Your task to perform on an android device: turn notification dots on Image 0: 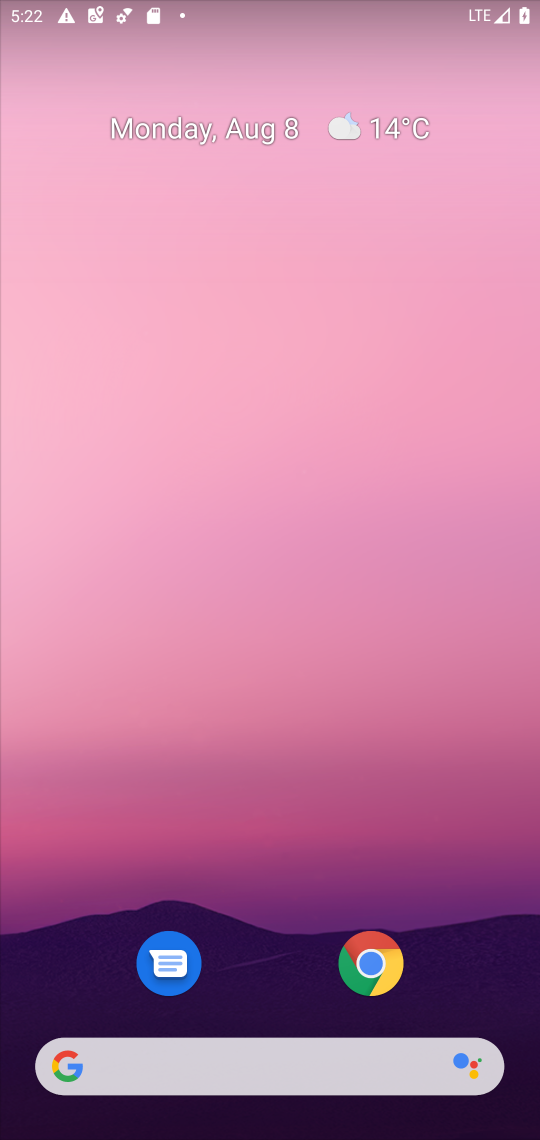
Step 0: drag from (281, 910) to (159, 187)
Your task to perform on an android device: turn notification dots on Image 1: 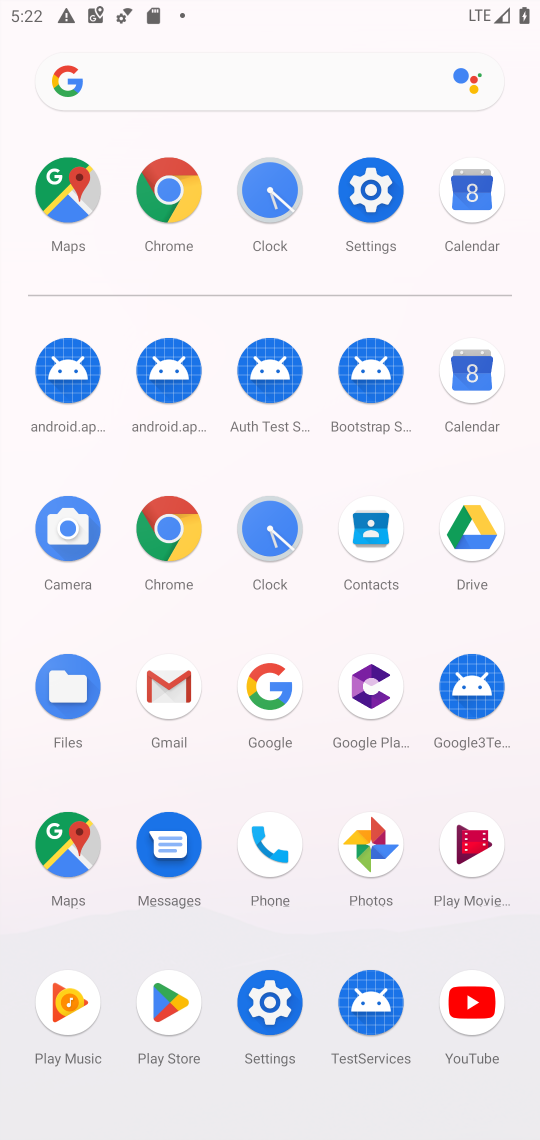
Step 1: click (259, 1008)
Your task to perform on an android device: turn notification dots on Image 2: 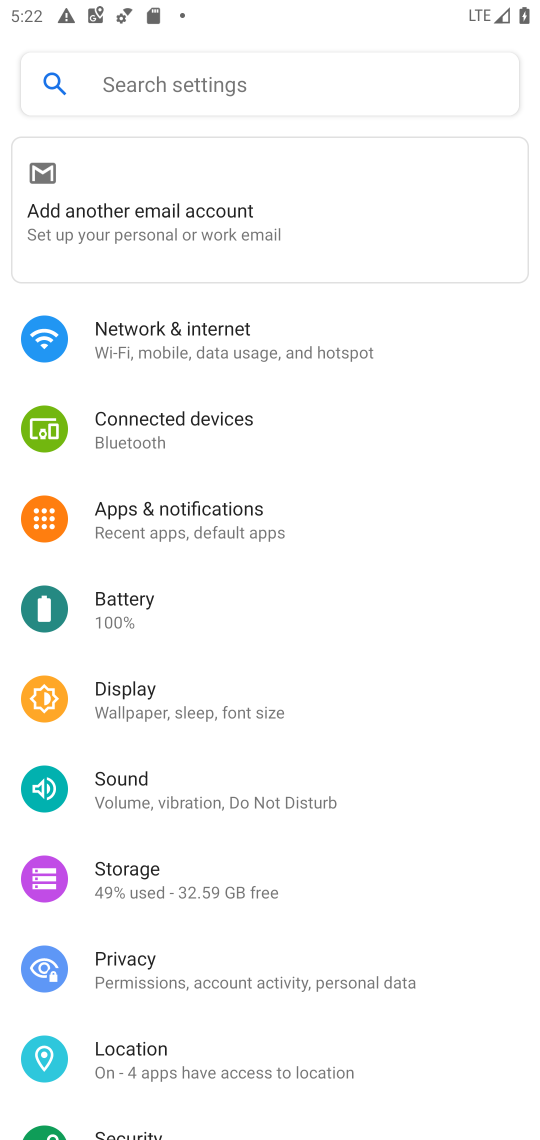
Step 2: click (232, 536)
Your task to perform on an android device: turn notification dots on Image 3: 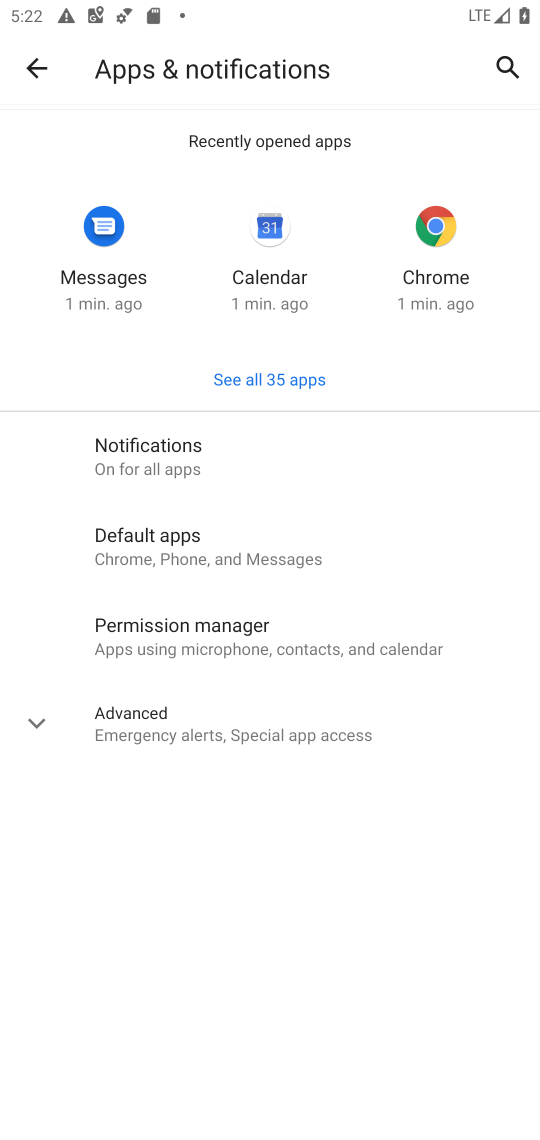
Step 3: click (166, 454)
Your task to perform on an android device: turn notification dots on Image 4: 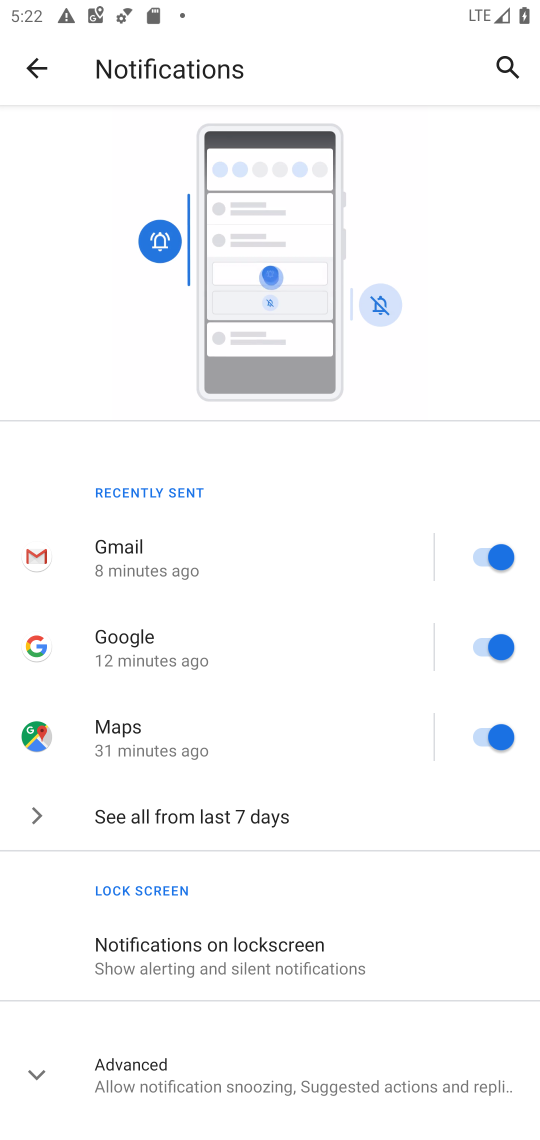
Step 4: click (182, 1062)
Your task to perform on an android device: turn notification dots on Image 5: 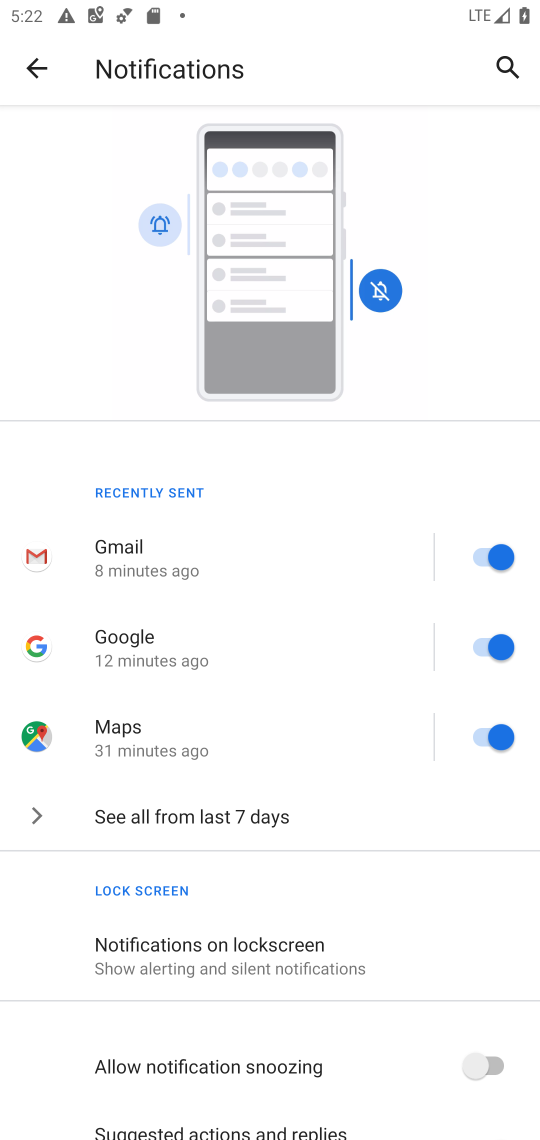
Step 5: drag from (334, 1058) to (311, 182)
Your task to perform on an android device: turn notification dots on Image 6: 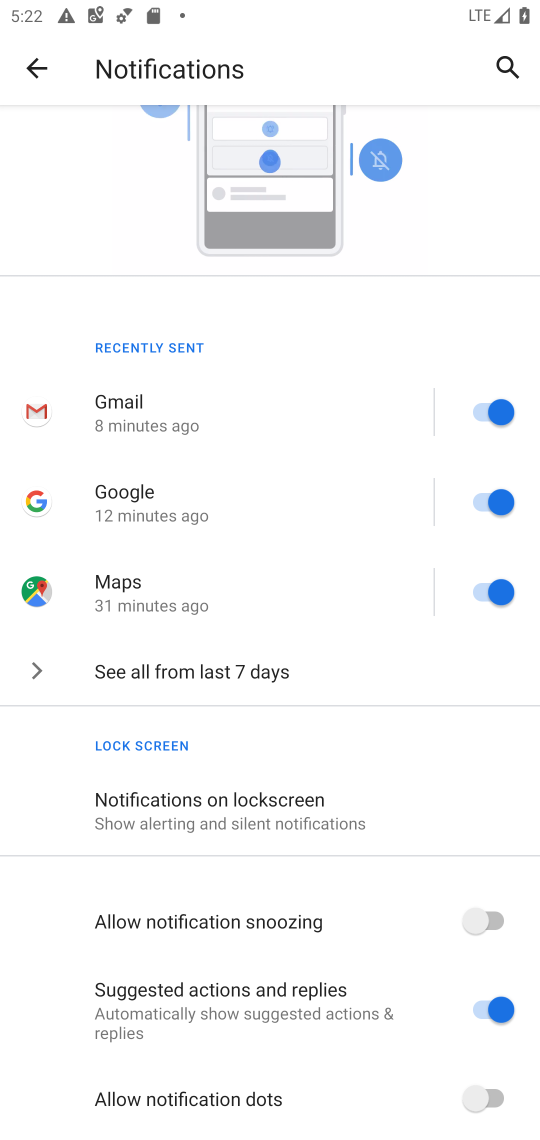
Step 6: click (492, 1095)
Your task to perform on an android device: turn notification dots on Image 7: 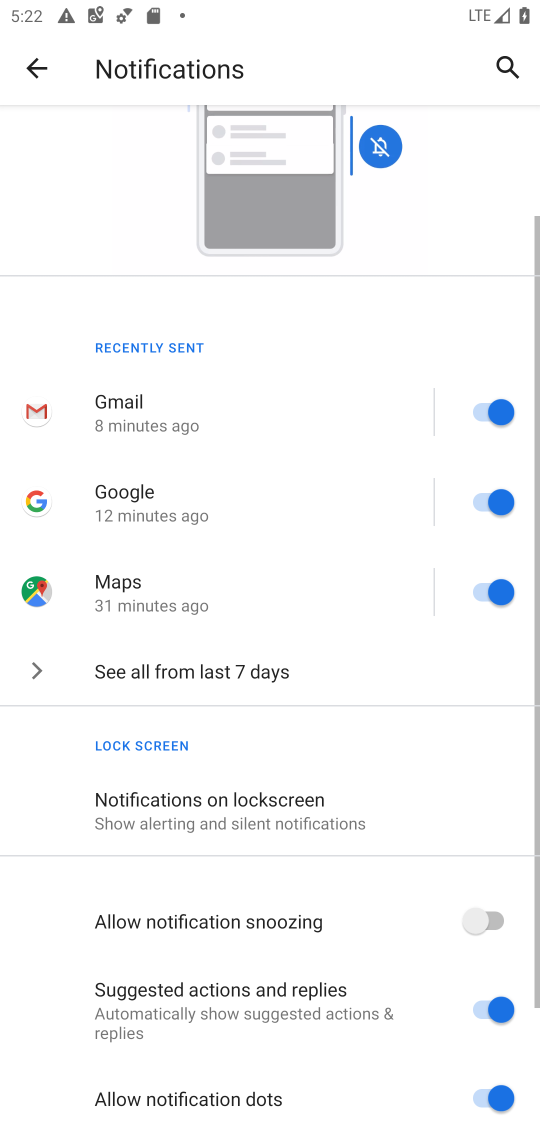
Step 7: task complete